Your task to perform on an android device: Clear the shopping cart on target. Add lg ultragear to the cart on target Image 0: 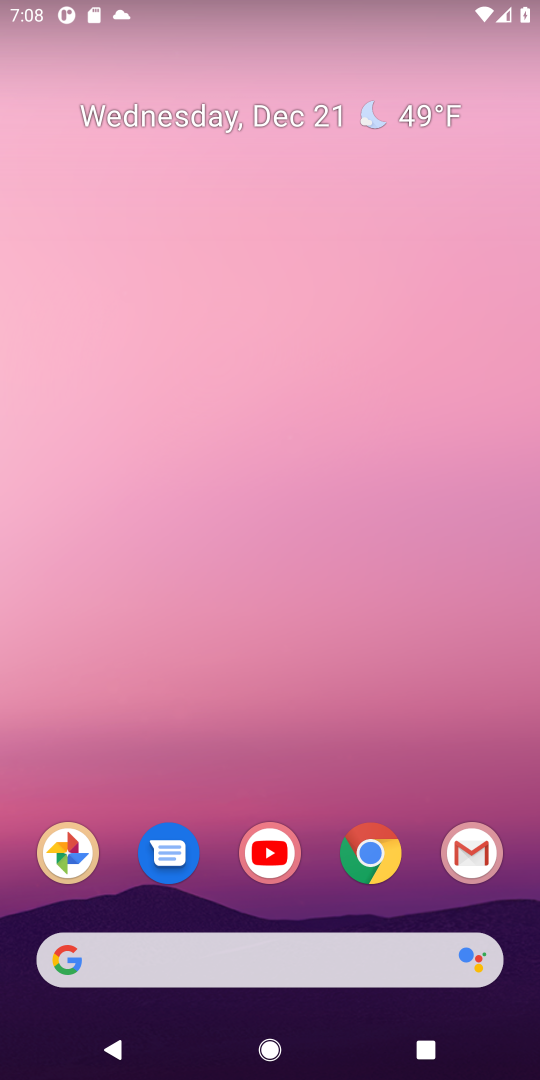
Step 0: click (386, 841)
Your task to perform on an android device: Clear the shopping cart on target. Add lg ultragear to the cart on target Image 1: 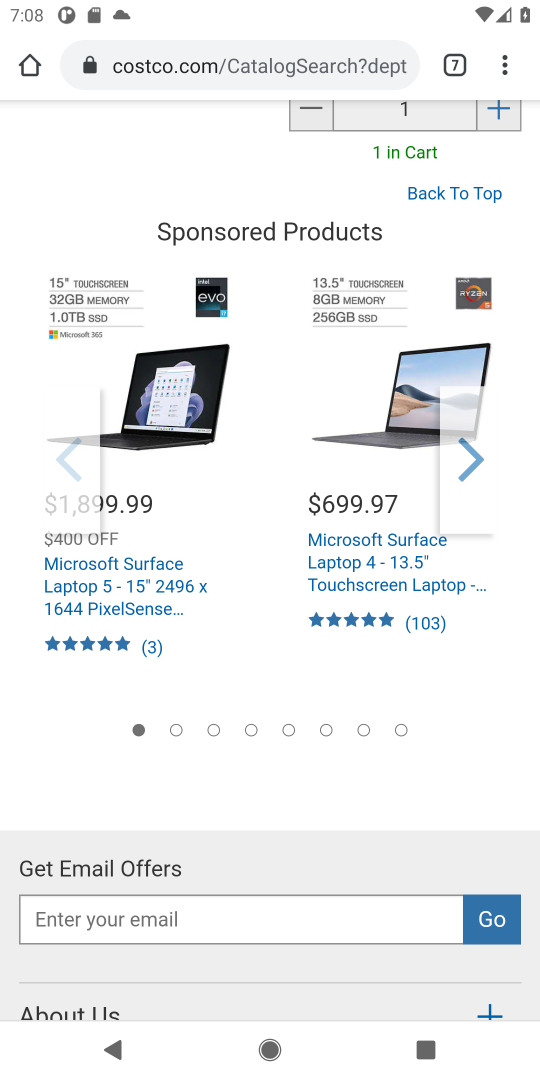
Step 1: click (454, 65)
Your task to perform on an android device: Clear the shopping cart on target. Add lg ultragear to the cart on target Image 2: 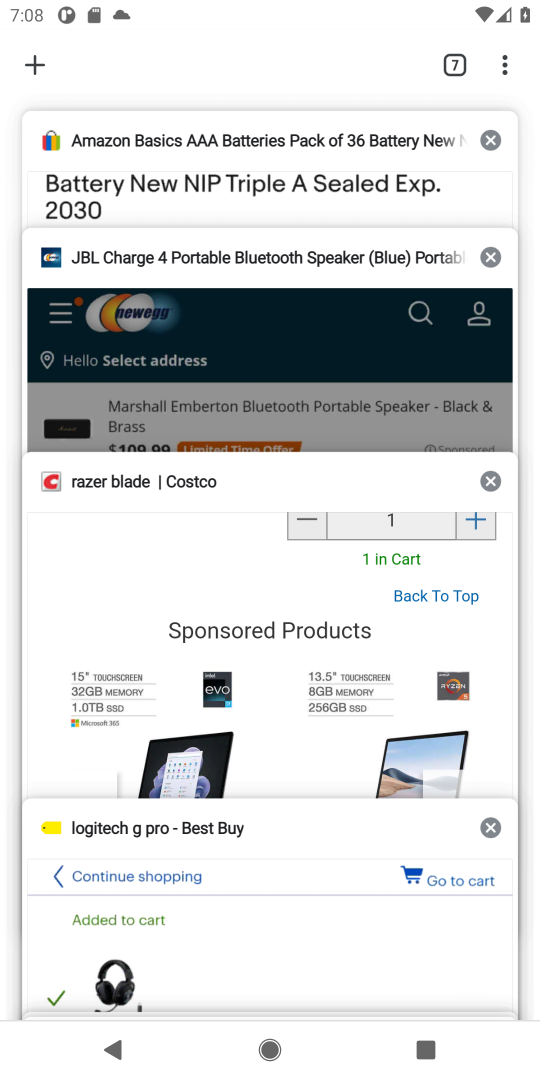
Step 2: drag from (232, 917) to (268, 600)
Your task to perform on an android device: Clear the shopping cart on target. Add lg ultragear to the cart on target Image 3: 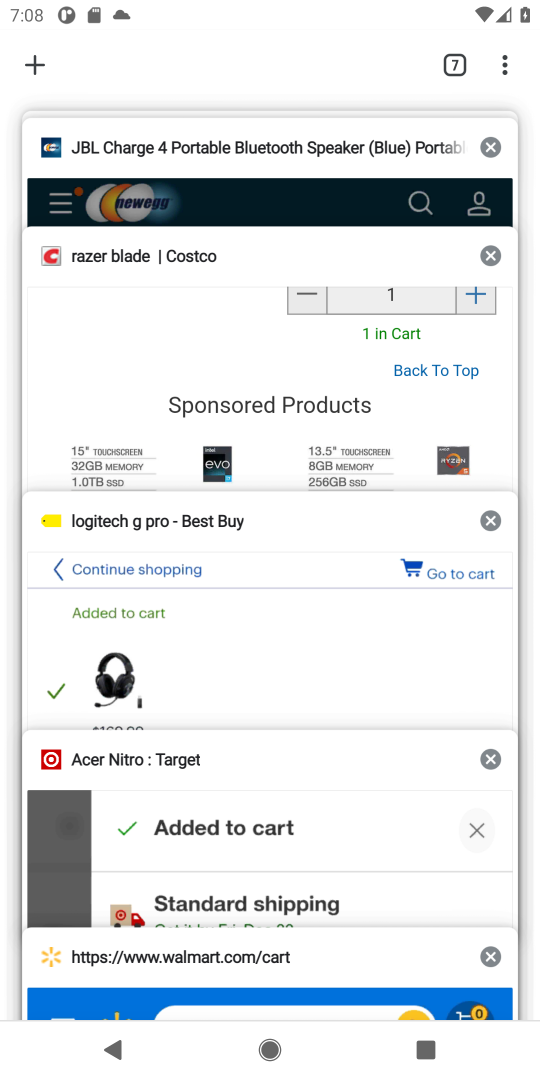
Step 3: click (237, 817)
Your task to perform on an android device: Clear the shopping cart on target. Add lg ultragear to the cart on target Image 4: 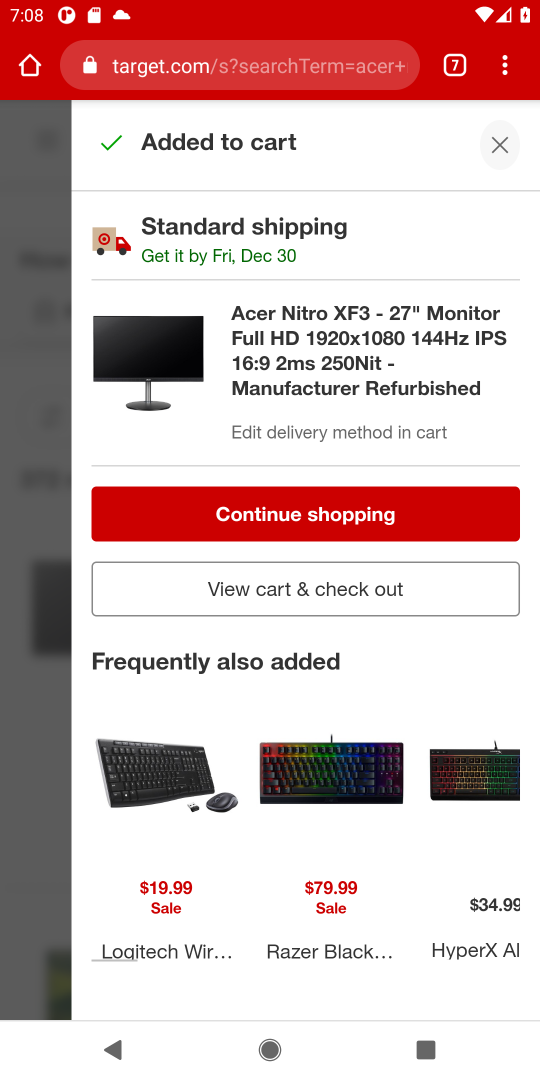
Step 4: click (496, 151)
Your task to perform on an android device: Clear the shopping cart on target. Add lg ultragear to the cart on target Image 5: 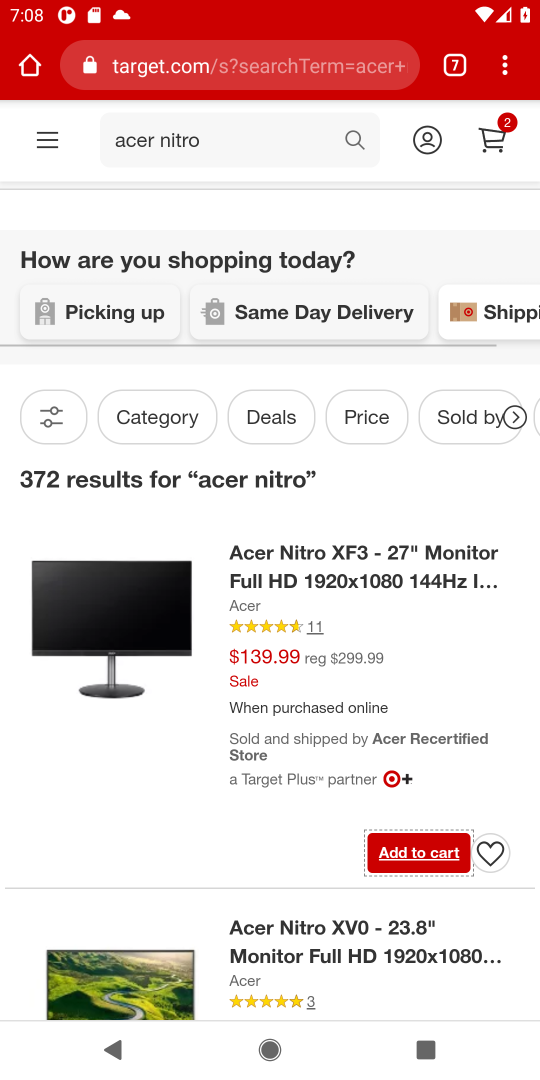
Step 5: click (165, 142)
Your task to perform on an android device: Clear the shopping cart on target. Add lg ultragear to the cart on target Image 6: 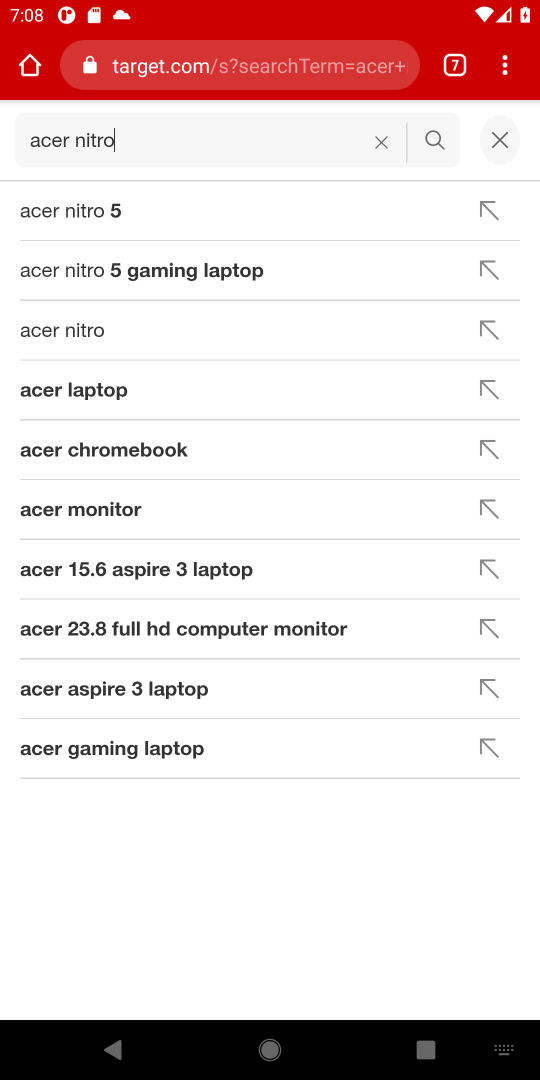
Step 6: click (386, 142)
Your task to perform on an android device: Clear the shopping cart on target. Add lg ultragear to the cart on target Image 7: 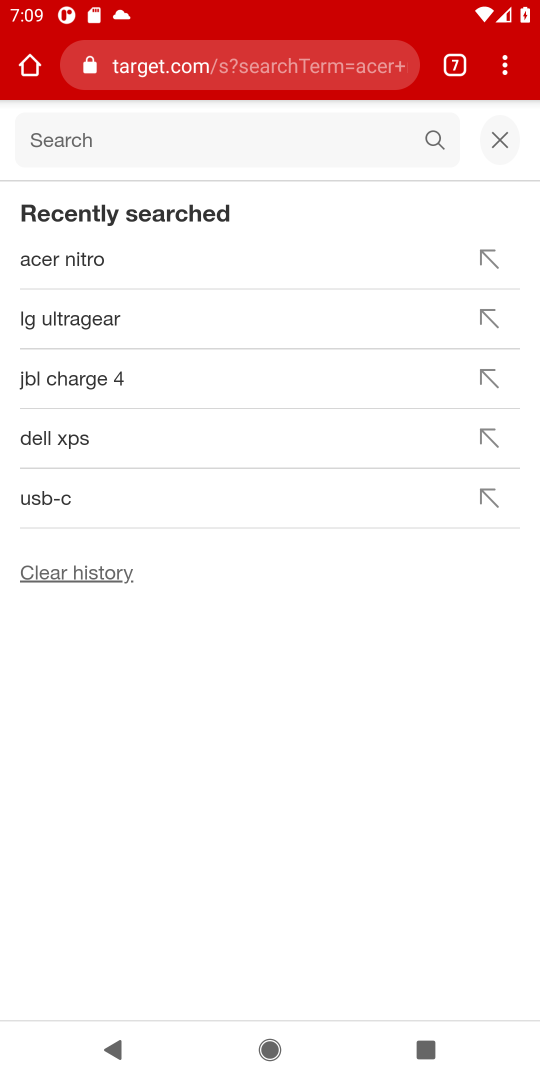
Step 7: type "lg ultragear"
Your task to perform on an android device: Clear the shopping cart on target. Add lg ultragear to the cart on target Image 8: 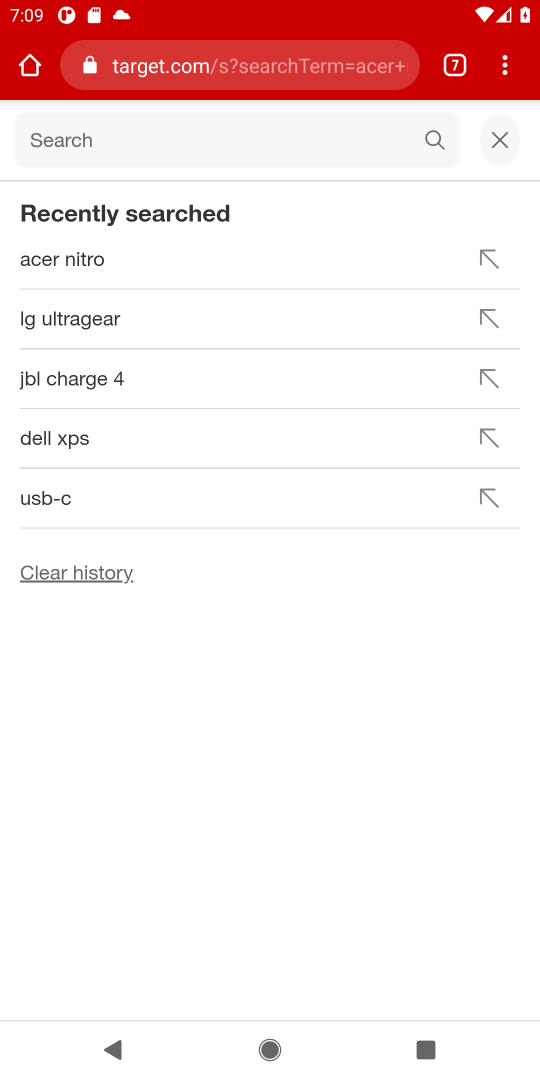
Step 8: click (150, 129)
Your task to perform on an android device: Clear the shopping cart on target. Add lg ultragear to the cart on target Image 9: 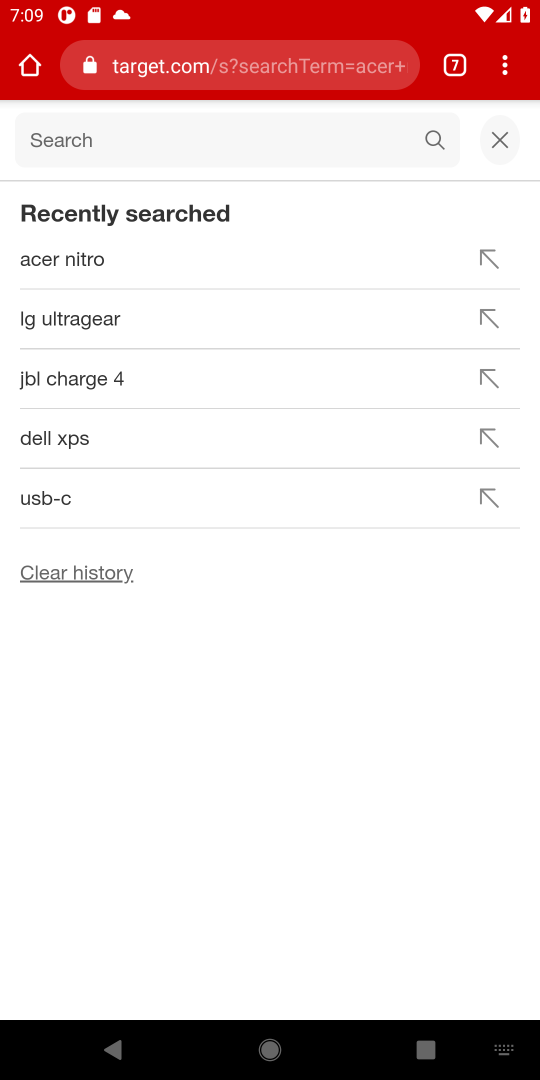
Step 9: type "lg ultragear"
Your task to perform on an android device: Clear the shopping cart on target. Add lg ultragear to the cart on target Image 10: 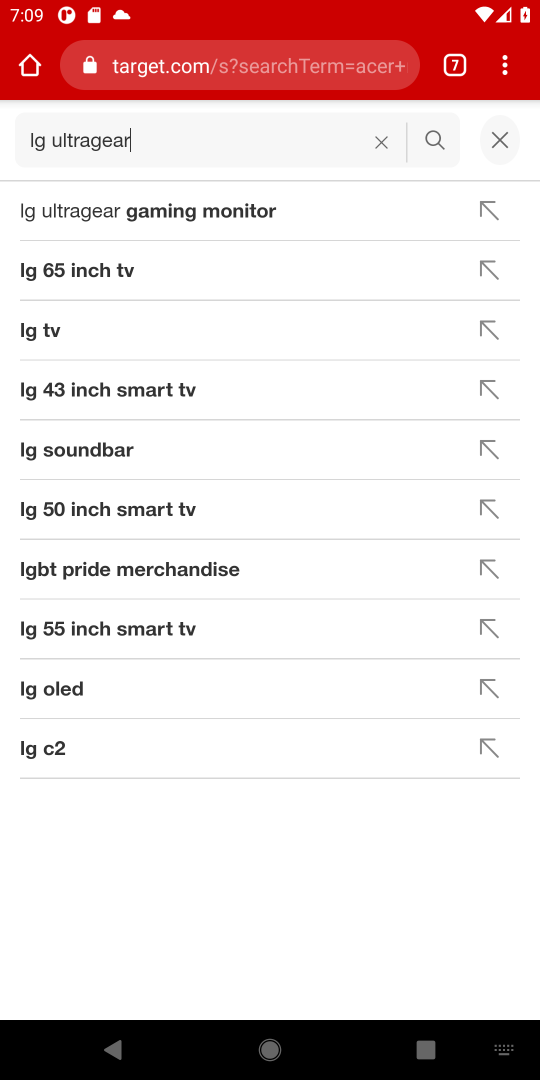
Step 10: click (432, 143)
Your task to perform on an android device: Clear the shopping cart on target. Add lg ultragear to the cart on target Image 11: 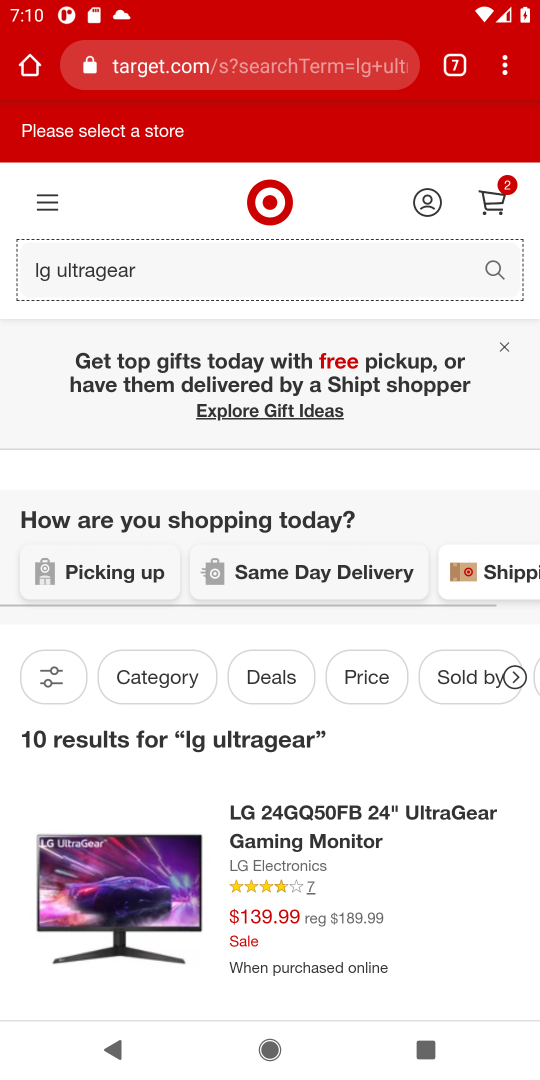
Step 11: drag from (372, 891) to (465, 520)
Your task to perform on an android device: Clear the shopping cart on target. Add lg ultragear to the cart on target Image 12: 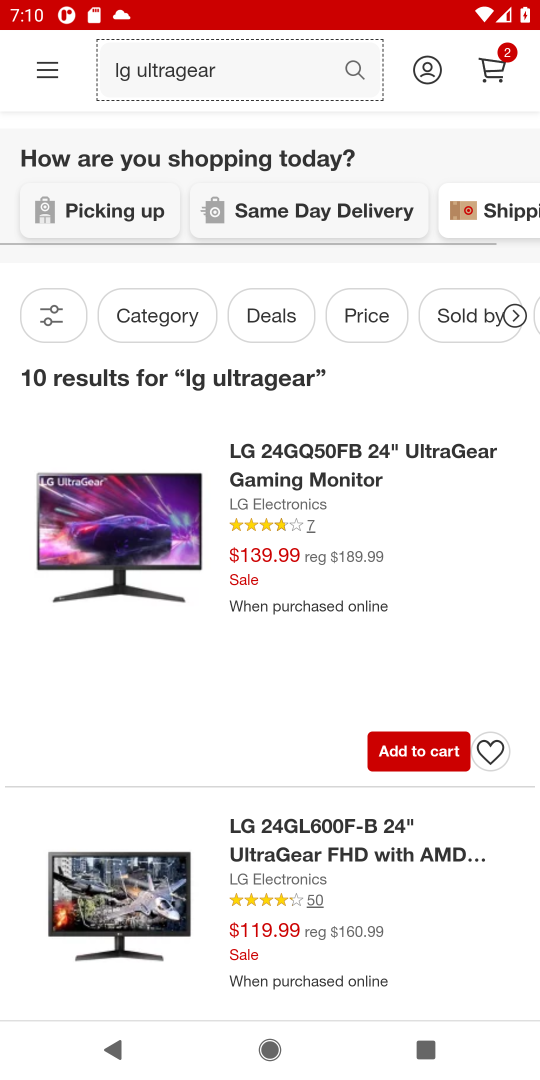
Step 12: click (414, 740)
Your task to perform on an android device: Clear the shopping cart on target. Add lg ultragear to the cart on target Image 13: 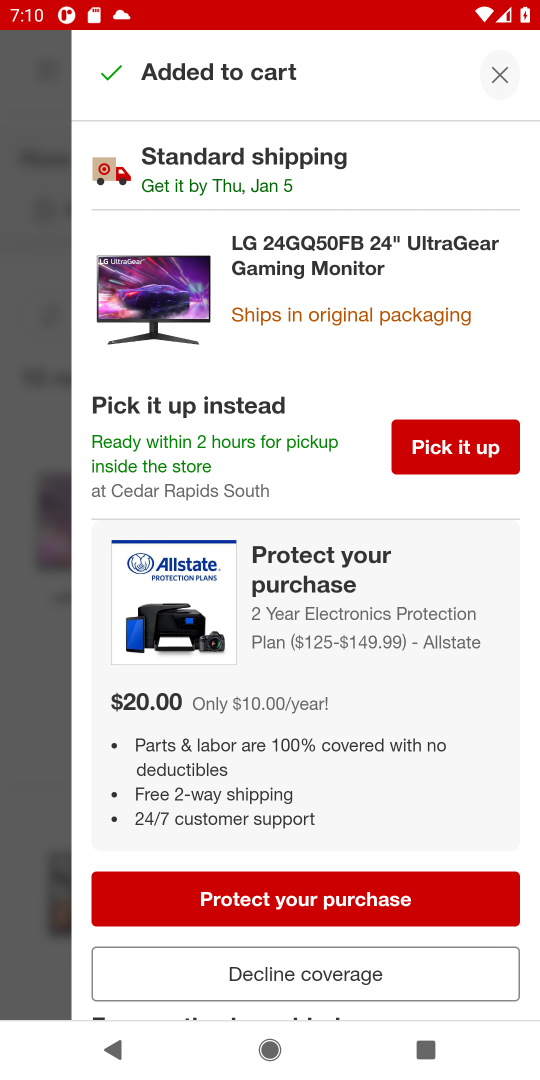
Step 13: task complete